Your task to perform on an android device: turn off picture-in-picture Image 0: 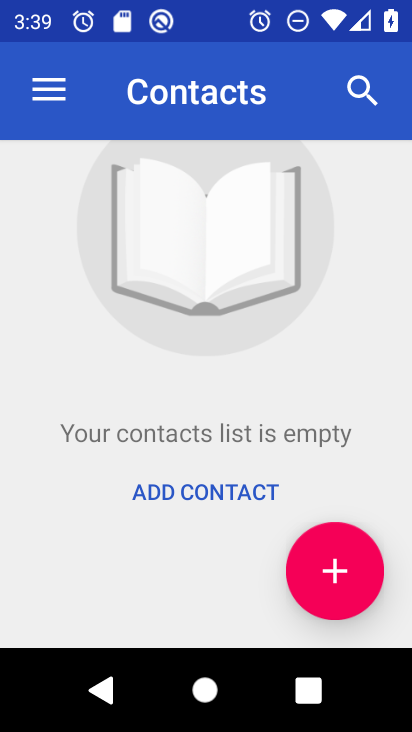
Step 0: press home button
Your task to perform on an android device: turn off picture-in-picture Image 1: 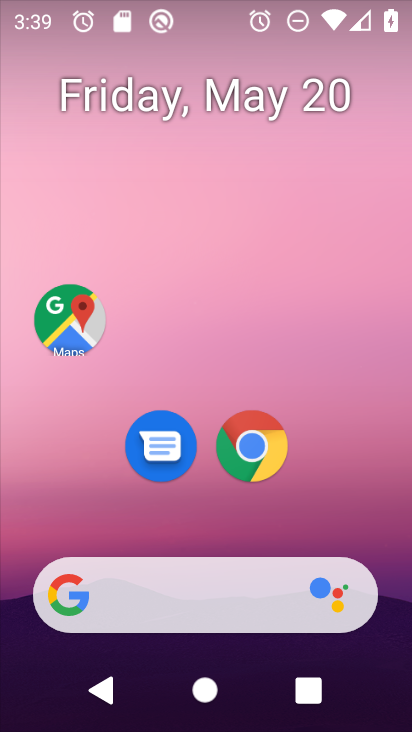
Step 1: click (253, 448)
Your task to perform on an android device: turn off picture-in-picture Image 2: 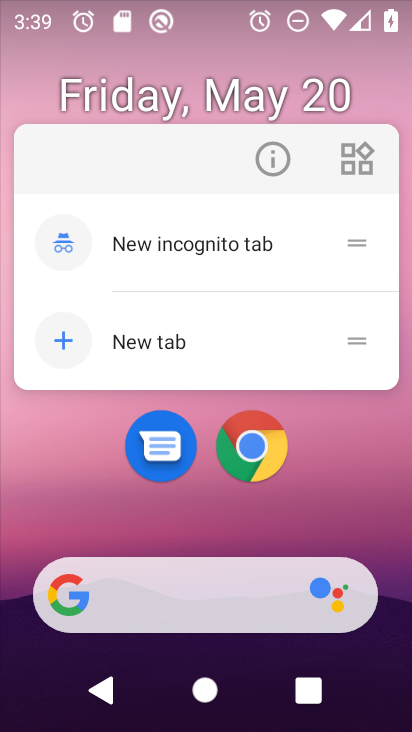
Step 2: click (271, 170)
Your task to perform on an android device: turn off picture-in-picture Image 3: 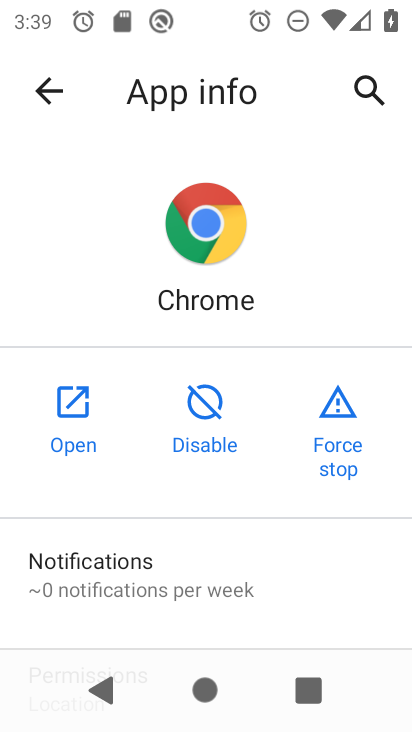
Step 3: drag from (248, 550) to (295, 102)
Your task to perform on an android device: turn off picture-in-picture Image 4: 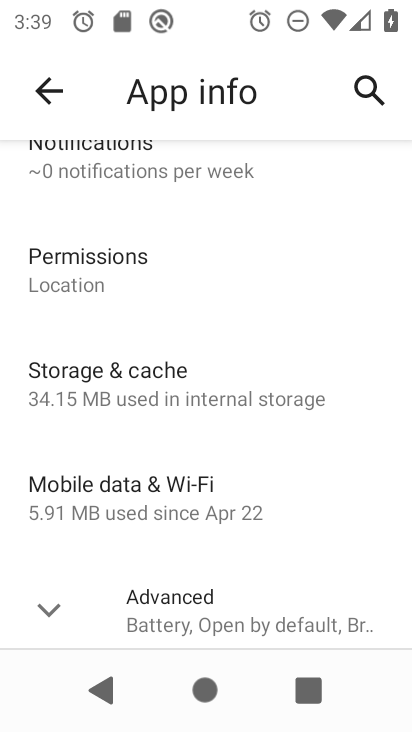
Step 4: drag from (185, 486) to (214, 164)
Your task to perform on an android device: turn off picture-in-picture Image 5: 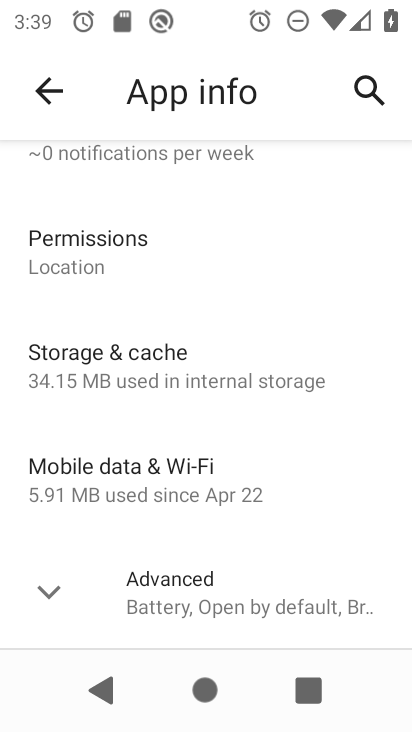
Step 5: click (48, 602)
Your task to perform on an android device: turn off picture-in-picture Image 6: 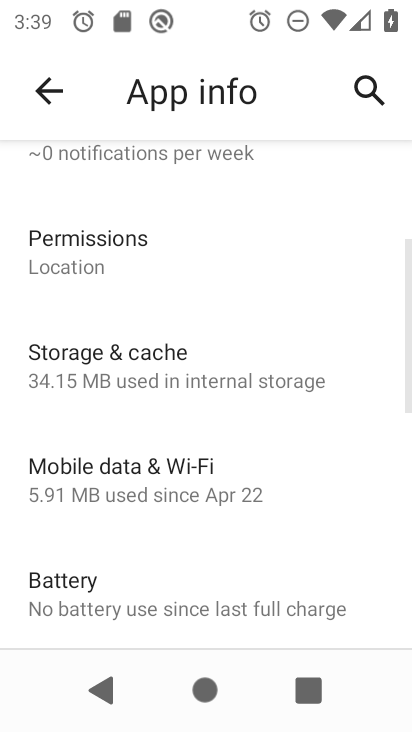
Step 6: drag from (196, 585) to (249, 163)
Your task to perform on an android device: turn off picture-in-picture Image 7: 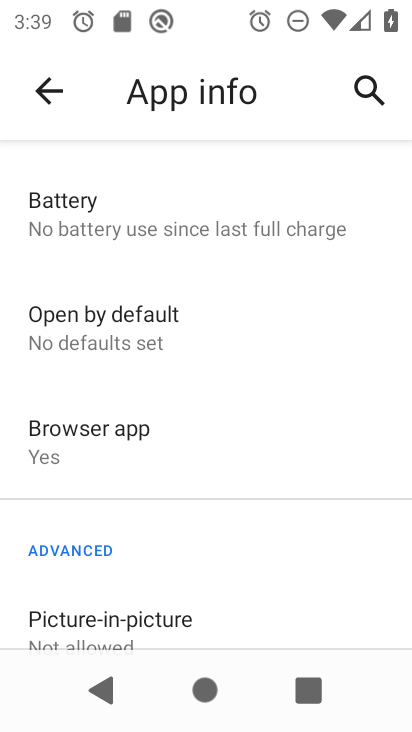
Step 7: drag from (197, 474) to (205, 230)
Your task to perform on an android device: turn off picture-in-picture Image 8: 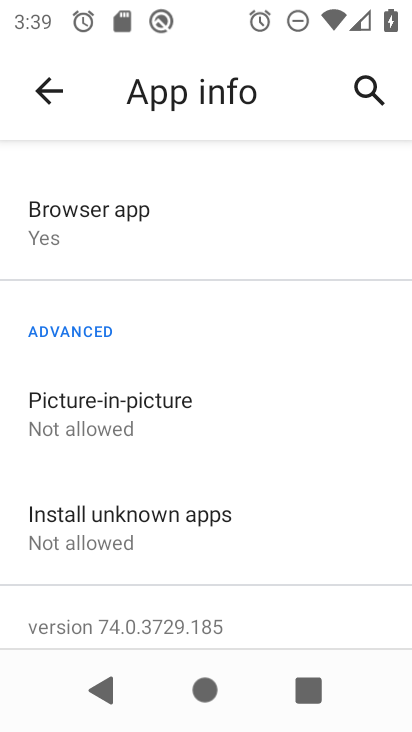
Step 8: click (78, 416)
Your task to perform on an android device: turn off picture-in-picture Image 9: 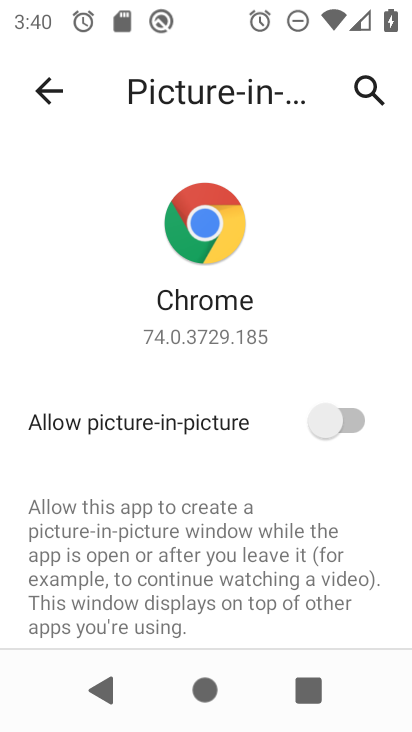
Step 9: task complete